Your task to perform on an android device: set an alarm Image 0: 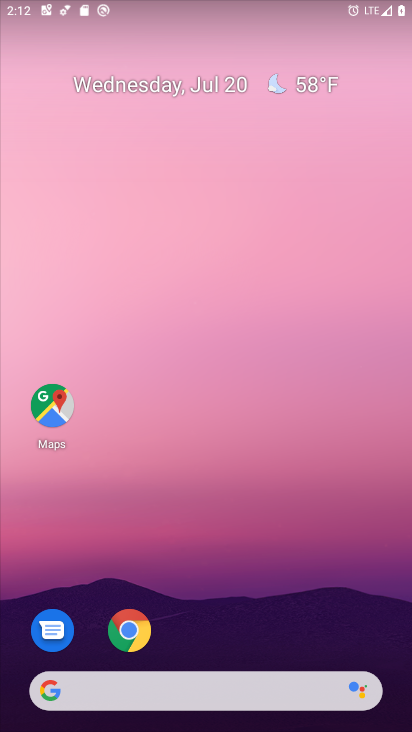
Step 0: drag from (166, 602) to (310, 62)
Your task to perform on an android device: set an alarm Image 1: 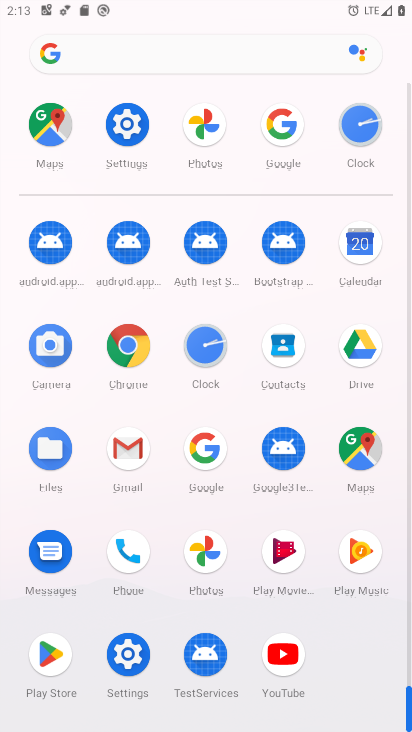
Step 1: click (209, 346)
Your task to perform on an android device: set an alarm Image 2: 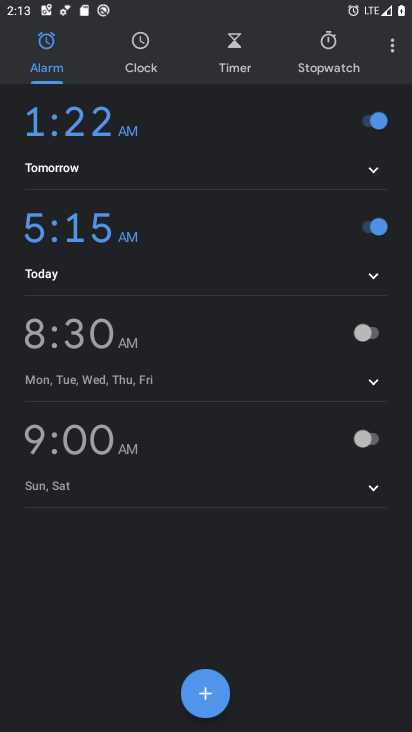
Step 2: click (204, 688)
Your task to perform on an android device: set an alarm Image 3: 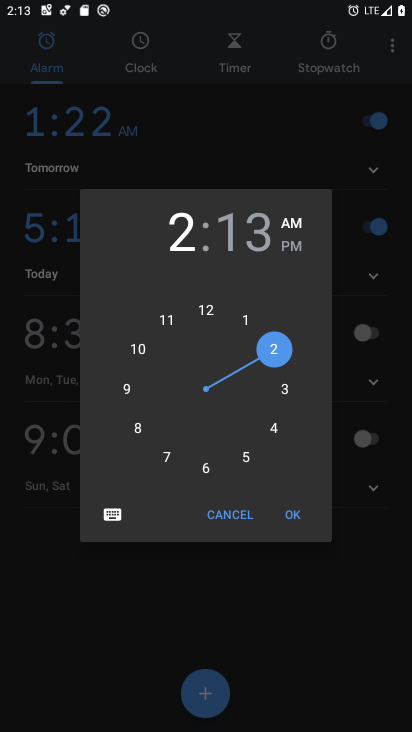
Step 3: click (295, 518)
Your task to perform on an android device: set an alarm Image 4: 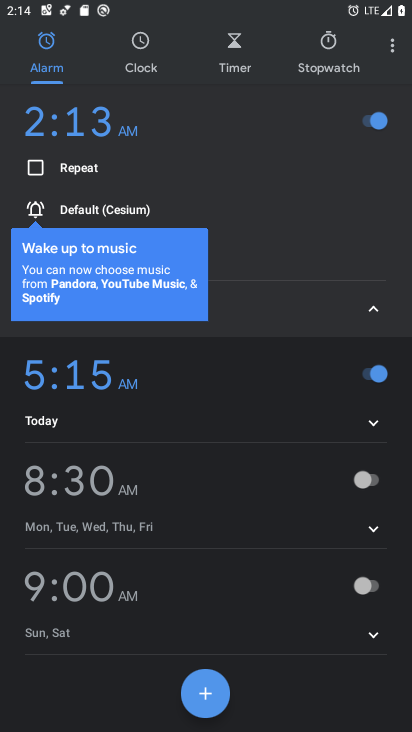
Step 4: task complete